Your task to perform on an android device: Do I have any events today? Image 0: 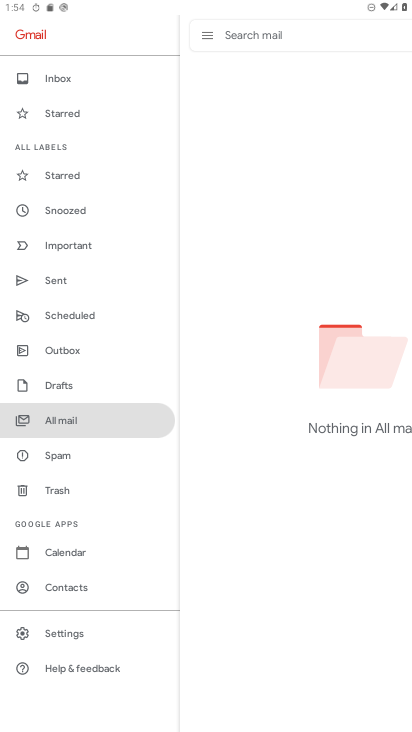
Step 0: press home button
Your task to perform on an android device: Do I have any events today? Image 1: 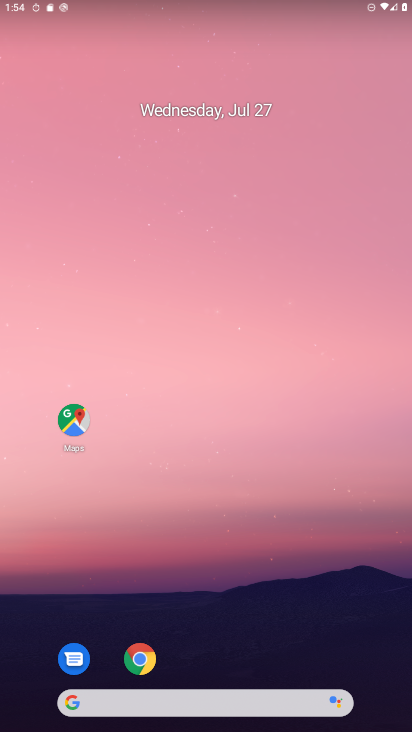
Step 1: drag from (215, 554) to (211, 52)
Your task to perform on an android device: Do I have any events today? Image 2: 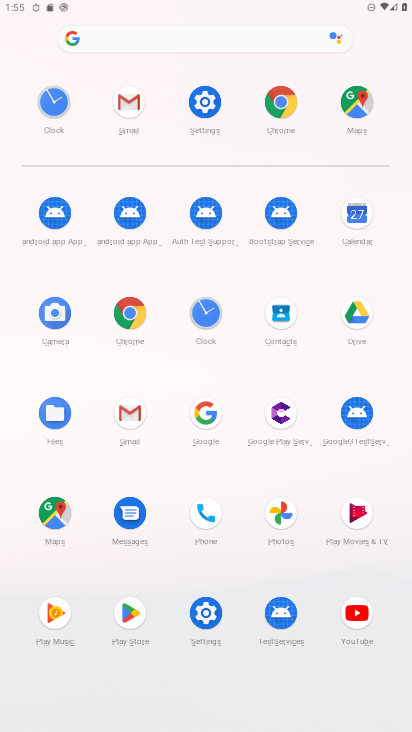
Step 2: click (353, 211)
Your task to perform on an android device: Do I have any events today? Image 3: 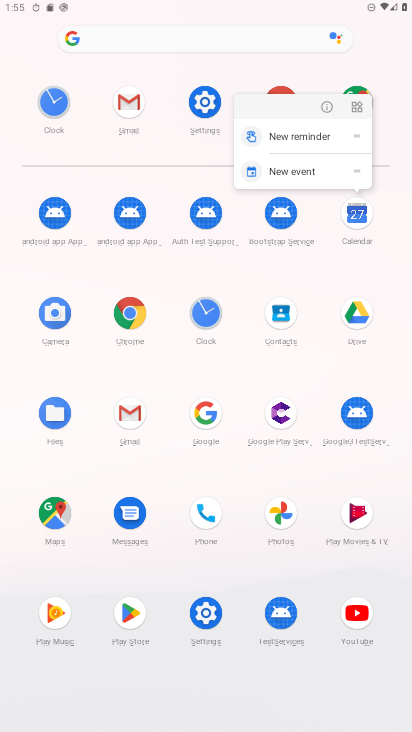
Step 3: click (362, 225)
Your task to perform on an android device: Do I have any events today? Image 4: 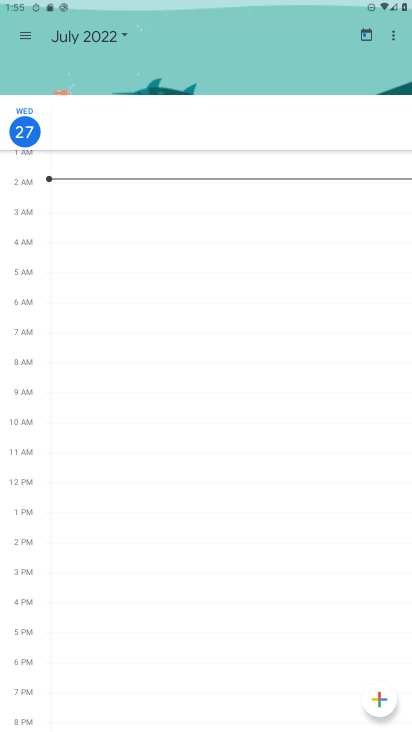
Step 4: click (64, 39)
Your task to perform on an android device: Do I have any events today? Image 5: 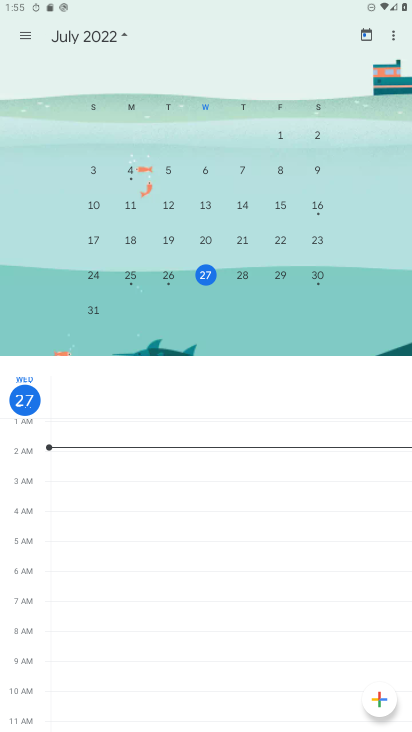
Step 5: task complete